Your task to perform on an android device: turn off location Image 0: 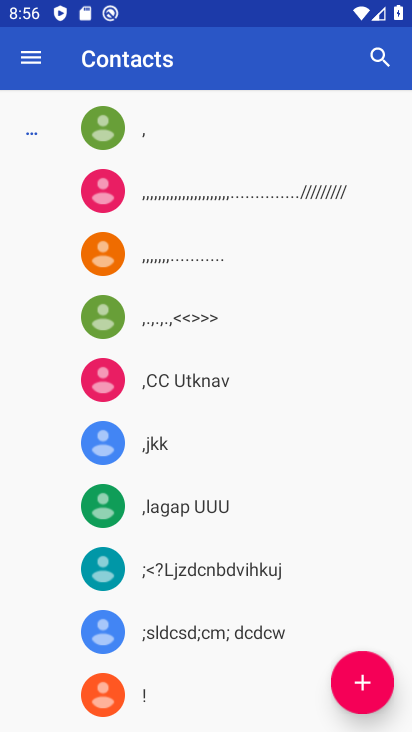
Step 0: press home button
Your task to perform on an android device: turn off location Image 1: 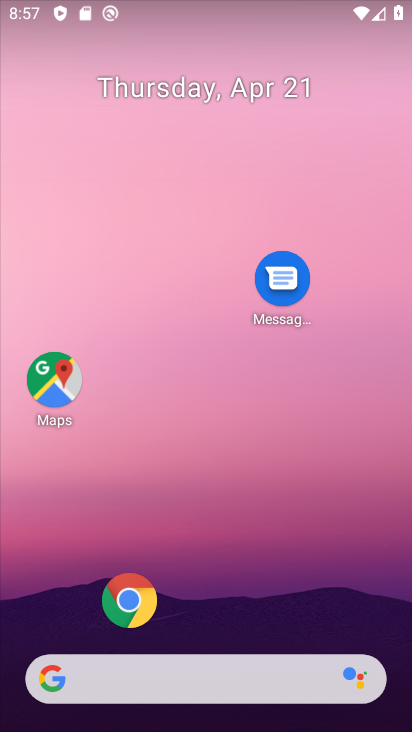
Step 1: drag from (75, 458) to (259, 32)
Your task to perform on an android device: turn off location Image 2: 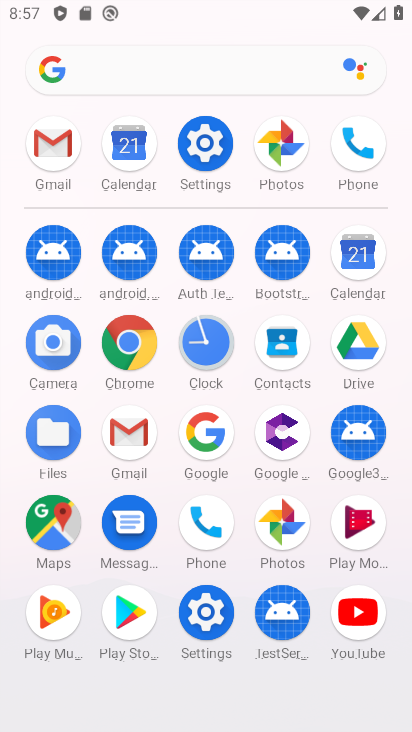
Step 2: click (201, 137)
Your task to perform on an android device: turn off location Image 3: 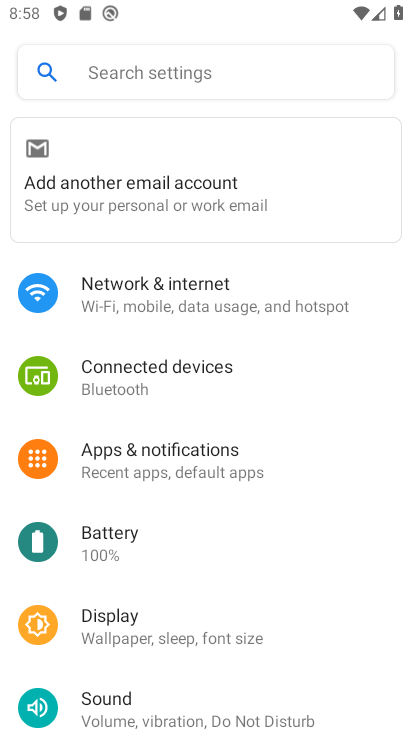
Step 3: drag from (109, 728) to (185, 244)
Your task to perform on an android device: turn off location Image 4: 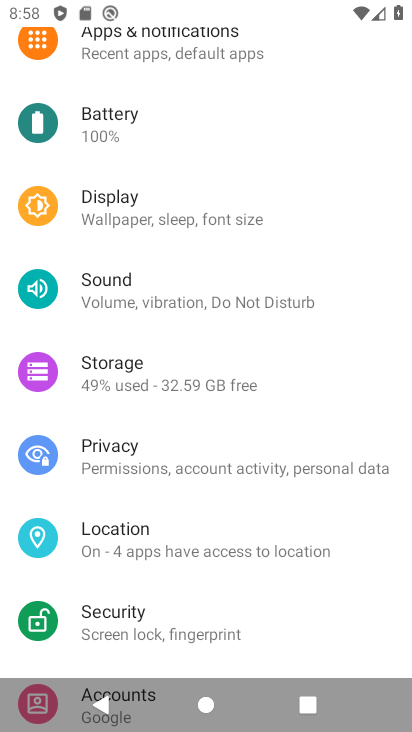
Step 4: click (147, 530)
Your task to perform on an android device: turn off location Image 5: 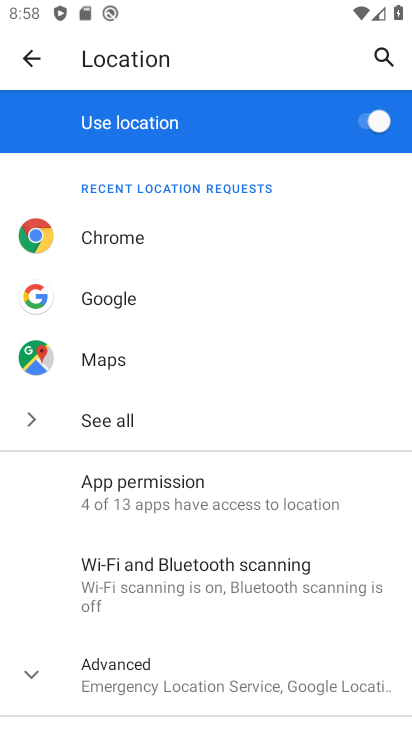
Step 5: click (386, 132)
Your task to perform on an android device: turn off location Image 6: 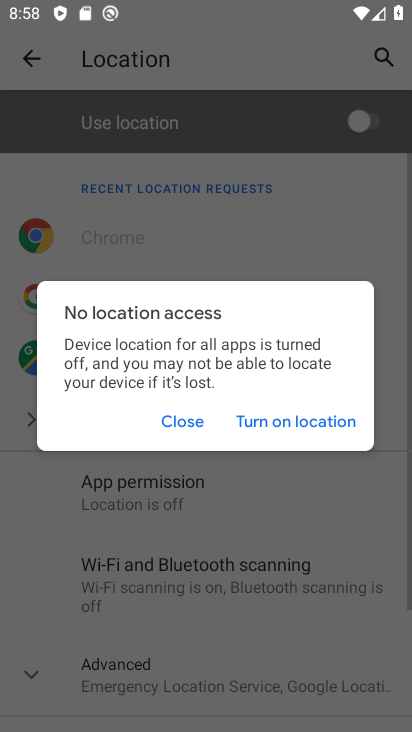
Step 6: task complete